Your task to perform on an android device: Open Youtube and go to "Your channel" Image 0: 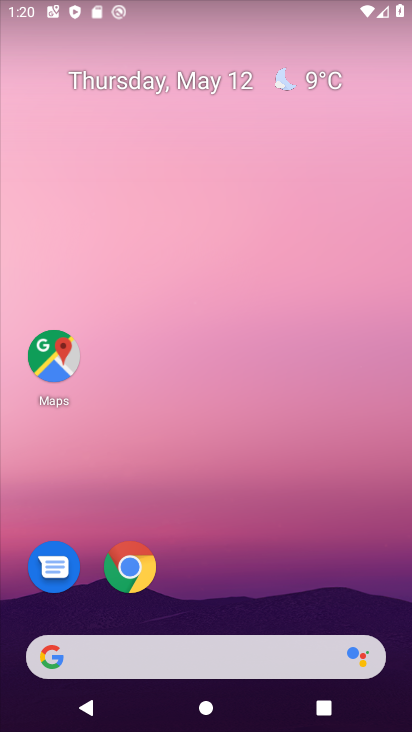
Step 0: drag from (218, 607) to (256, 21)
Your task to perform on an android device: Open Youtube and go to "Your channel" Image 1: 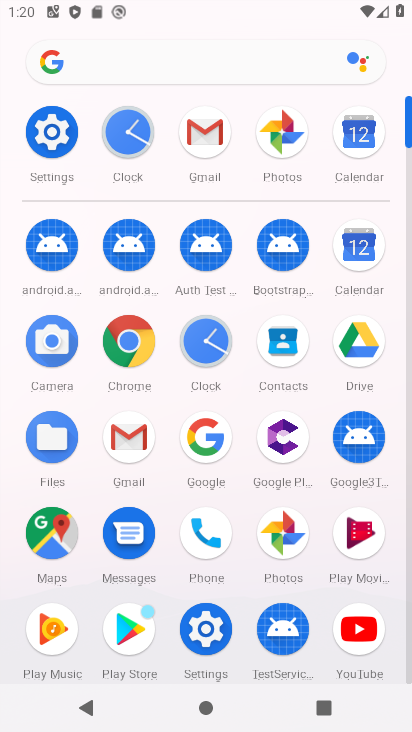
Step 1: click (356, 620)
Your task to perform on an android device: Open Youtube and go to "Your channel" Image 2: 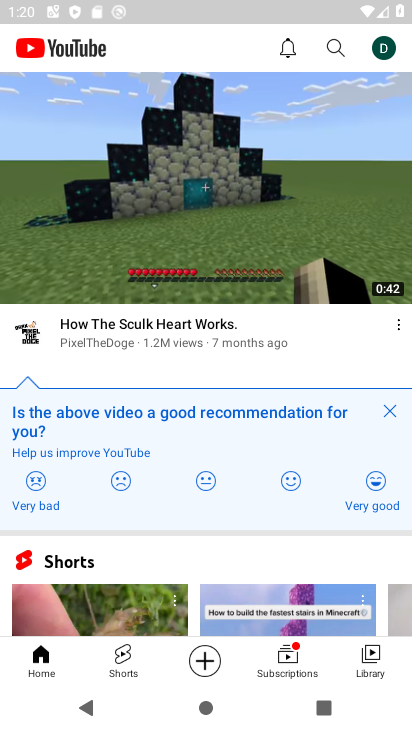
Step 2: click (370, 650)
Your task to perform on an android device: Open Youtube and go to "Your channel" Image 3: 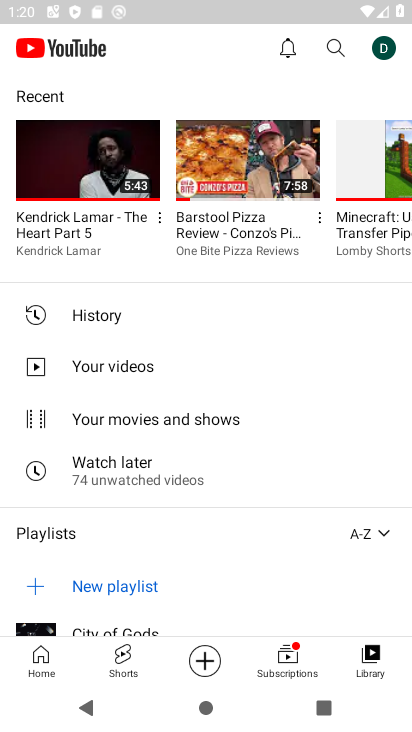
Step 3: click (382, 34)
Your task to perform on an android device: Open Youtube and go to "Your channel" Image 4: 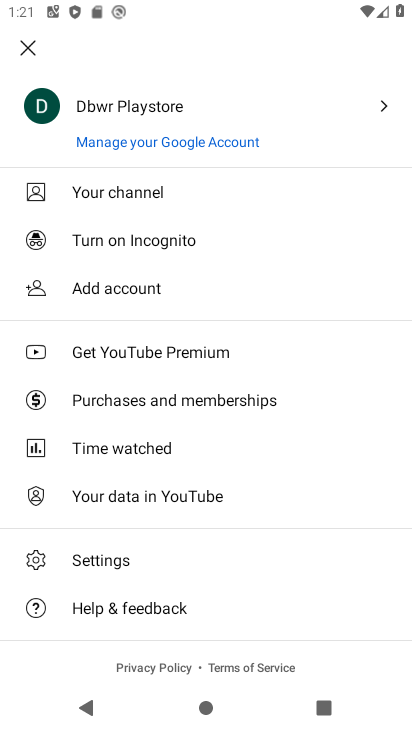
Step 4: click (131, 186)
Your task to perform on an android device: Open Youtube and go to "Your channel" Image 5: 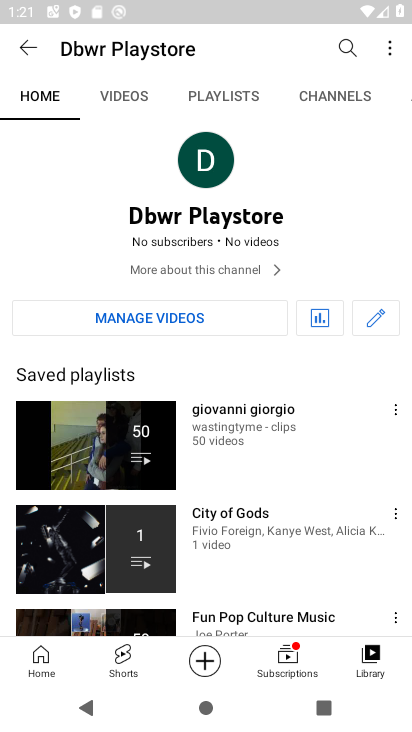
Step 5: task complete